Your task to perform on an android device: Go to location settings Image 0: 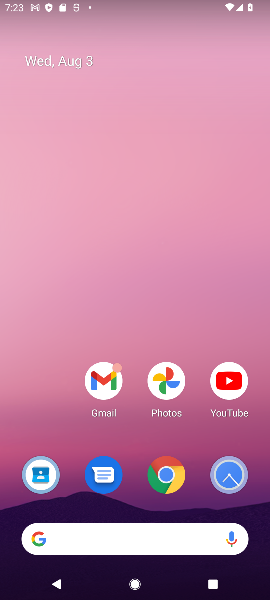
Step 0: drag from (138, 346) to (160, 58)
Your task to perform on an android device: Go to location settings Image 1: 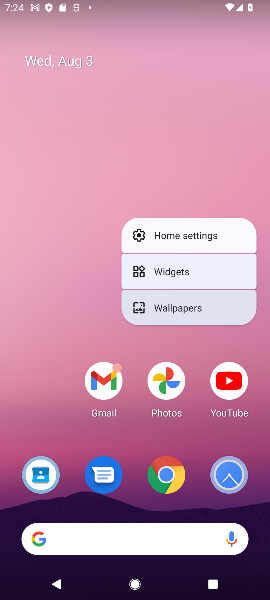
Step 1: click (34, 329)
Your task to perform on an android device: Go to location settings Image 2: 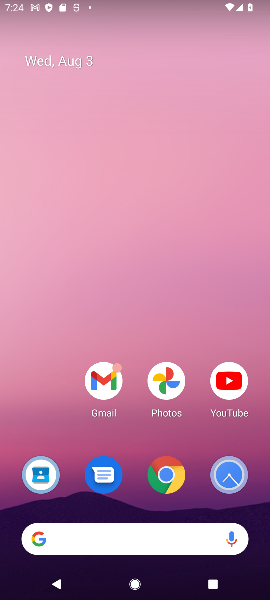
Step 2: drag from (81, 447) to (83, 153)
Your task to perform on an android device: Go to location settings Image 3: 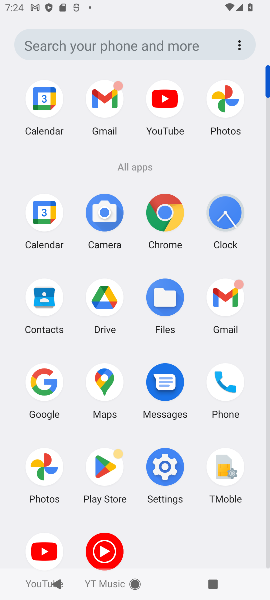
Step 3: click (162, 462)
Your task to perform on an android device: Go to location settings Image 4: 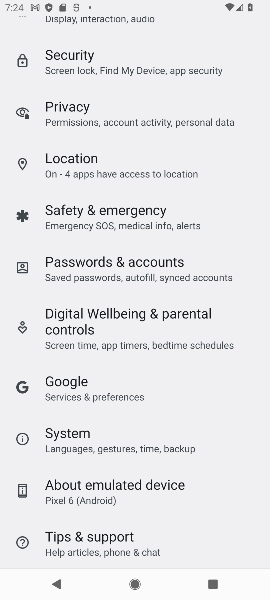
Step 4: click (96, 173)
Your task to perform on an android device: Go to location settings Image 5: 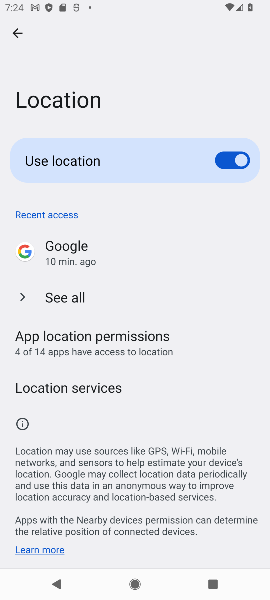
Step 5: task complete